Your task to perform on an android device: Open eBay Image 0: 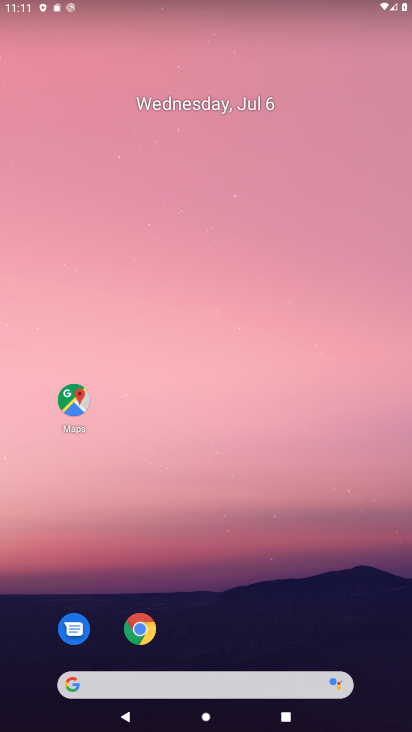
Step 0: drag from (326, 616) to (321, 15)
Your task to perform on an android device: Open eBay Image 1: 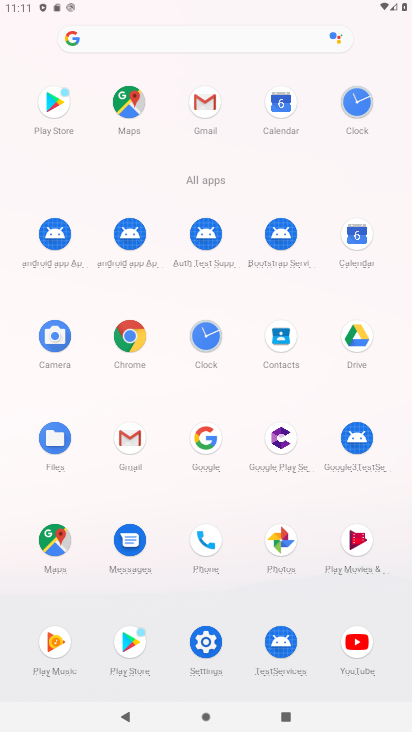
Step 1: click (136, 335)
Your task to perform on an android device: Open eBay Image 2: 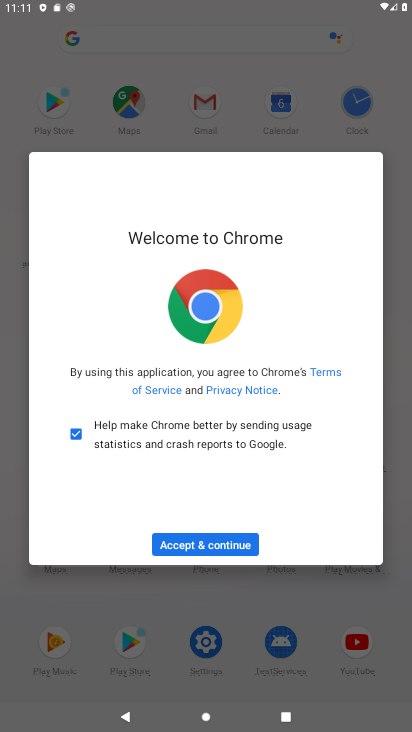
Step 2: click (228, 543)
Your task to perform on an android device: Open eBay Image 3: 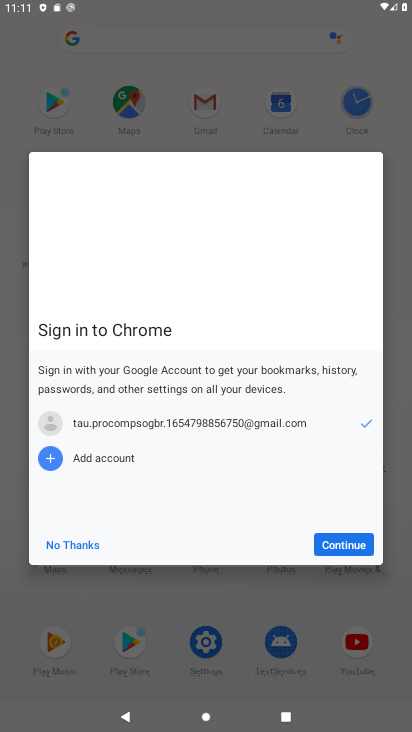
Step 3: click (331, 543)
Your task to perform on an android device: Open eBay Image 4: 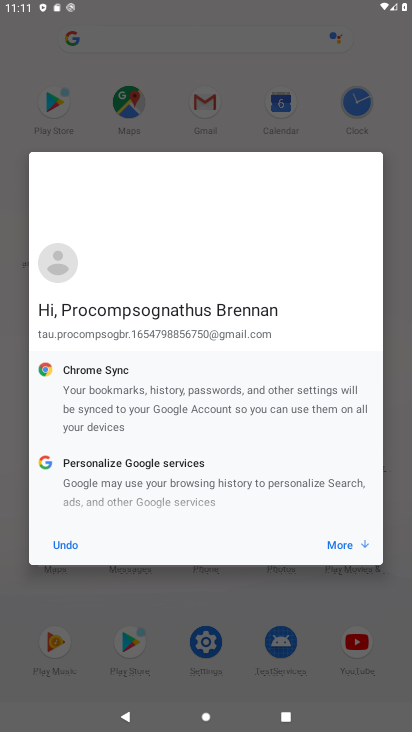
Step 4: click (346, 540)
Your task to perform on an android device: Open eBay Image 5: 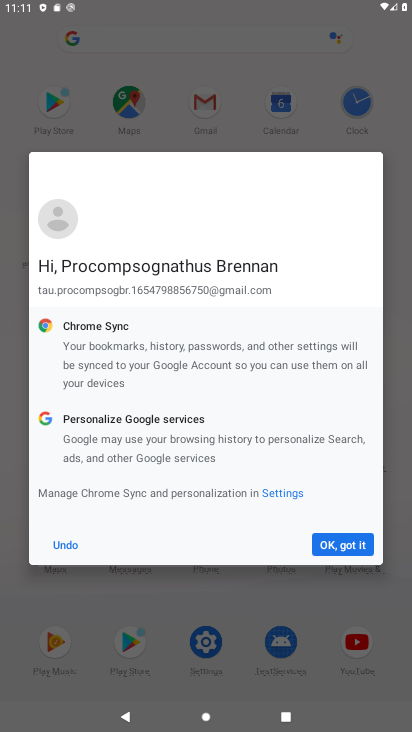
Step 5: click (346, 540)
Your task to perform on an android device: Open eBay Image 6: 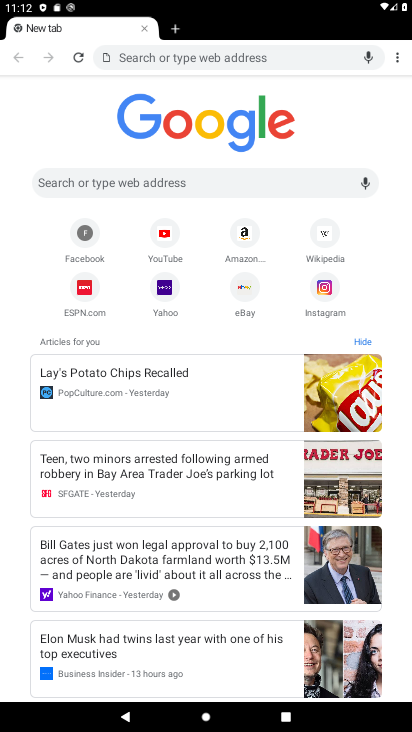
Step 6: type "ebay"
Your task to perform on an android device: Open eBay Image 7: 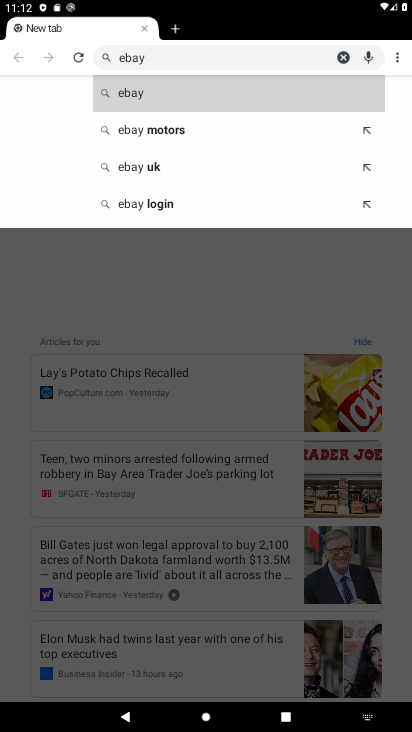
Step 7: click (137, 87)
Your task to perform on an android device: Open eBay Image 8: 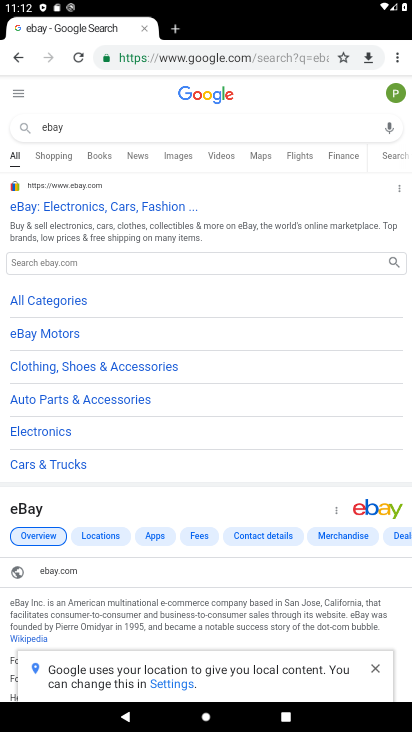
Step 8: task complete